Your task to perform on an android device: Go to eBay Image 0: 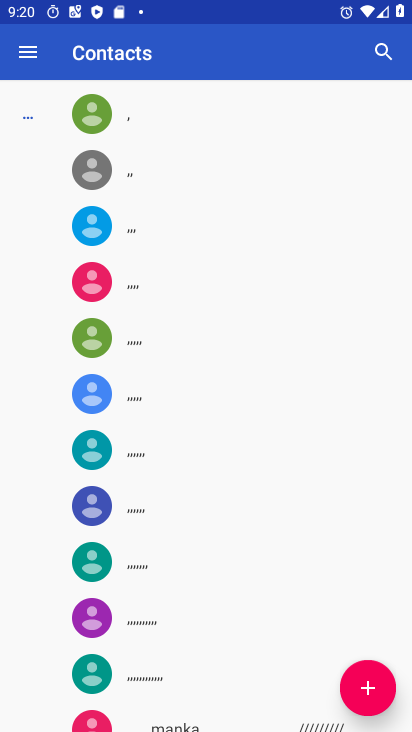
Step 0: press home button
Your task to perform on an android device: Go to eBay Image 1: 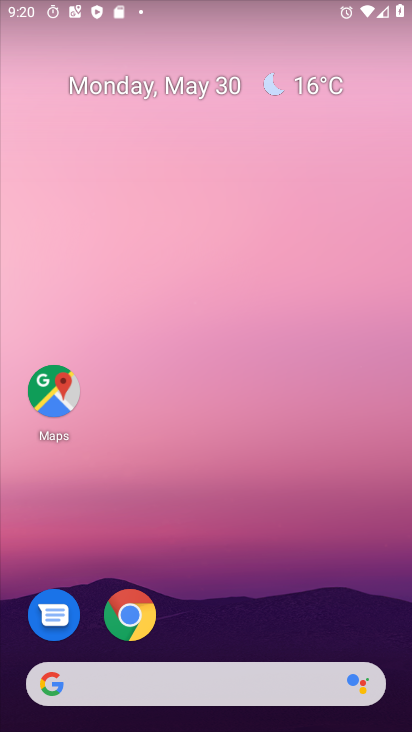
Step 1: drag from (331, 504) to (386, 57)
Your task to perform on an android device: Go to eBay Image 2: 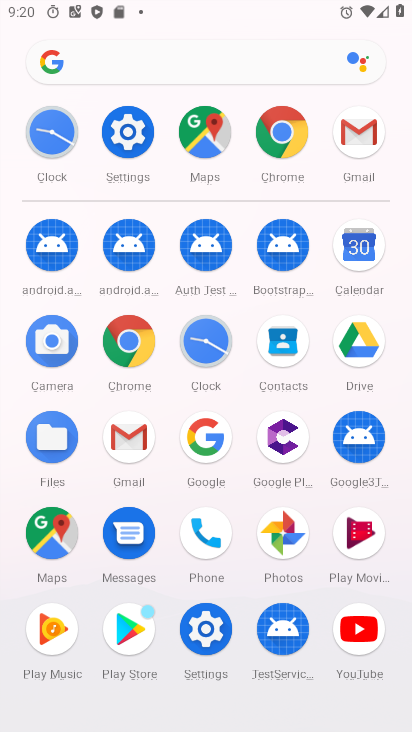
Step 2: click (295, 142)
Your task to perform on an android device: Go to eBay Image 3: 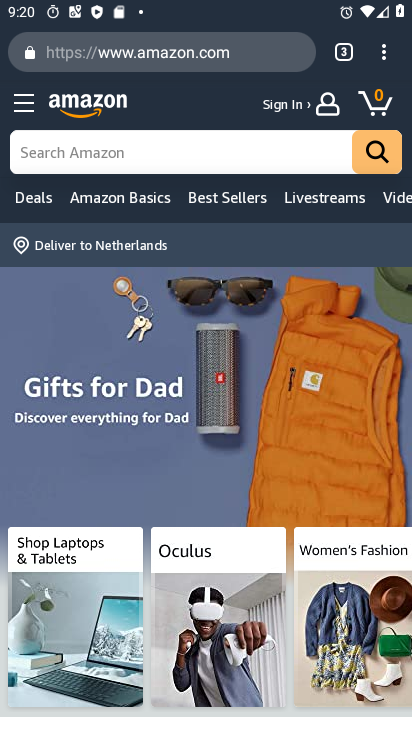
Step 3: click (187, 50)
Your task to perform on an android device: Go to eBay Image 4: 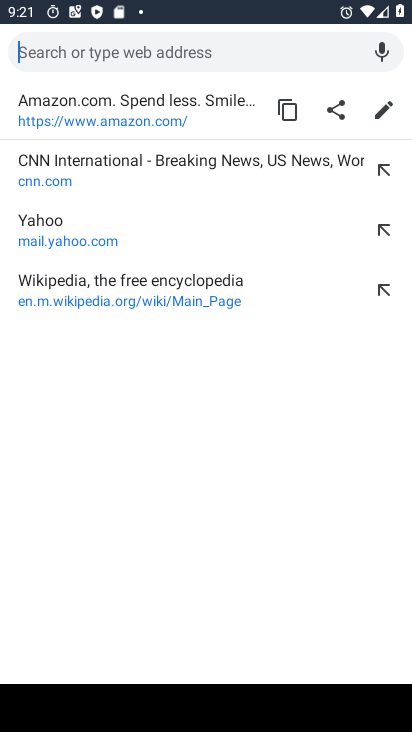
Step 4: type "ebay"
Your task to perform on an android device: Go to eBay Image 5: 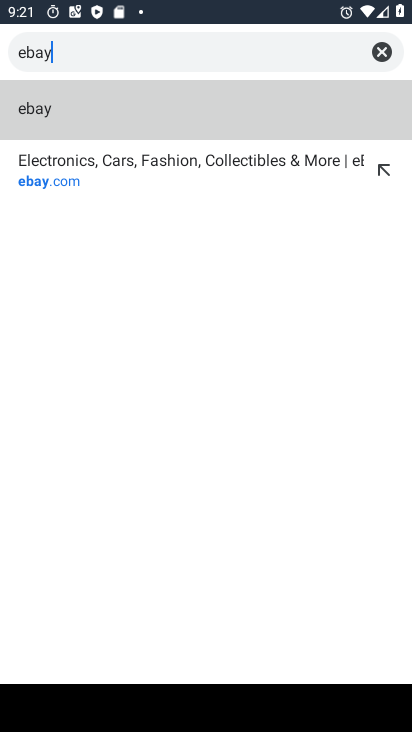
Step 5: click (18, 181)
Your task to perform on an android device: Go to eBay Image 6: 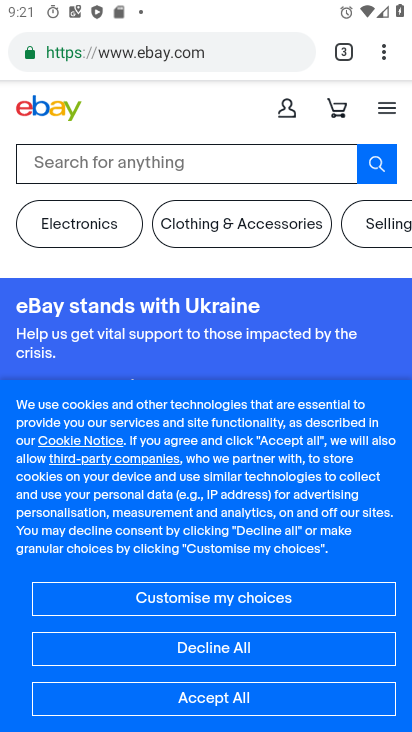
Step 6: task complete